Your task to perform on an android device: open a new tab in the chrome app Image 0: 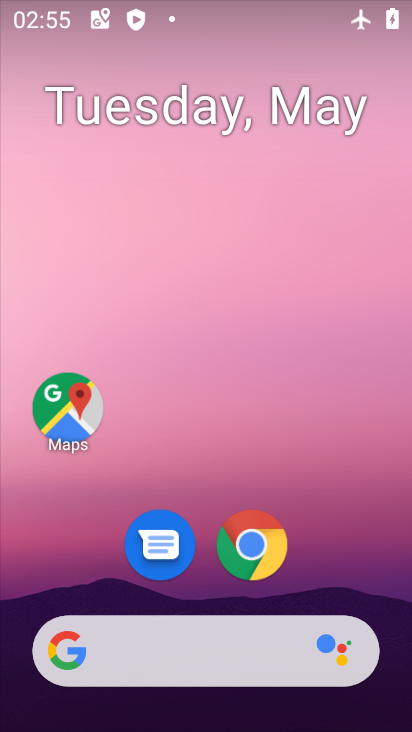
Step 0: click (251, 547)
Your task to perform on an android device: open a new tab in the chrome app Image 1: 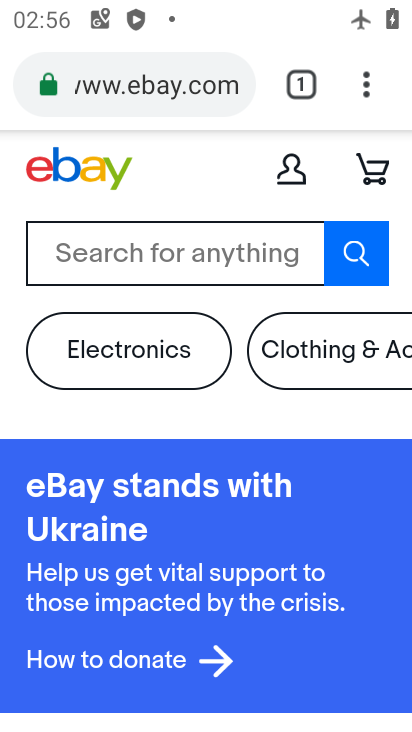
Step 1: click (368, 89)
Your task to perform on an android device: open a new tab in the chrome app Image 2: 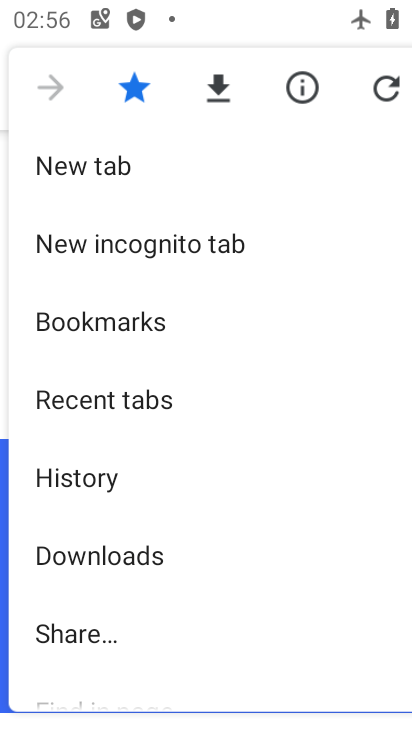
Step 2: click (93, 163)
Your task to perform on an android device: open a new tab in the chrome app Image 3: 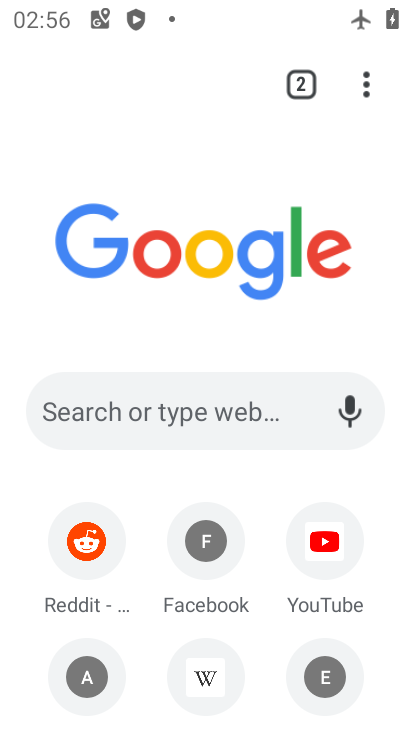
Step 3: task complete